Your task to perform on an android device: turn on javascript in the chrome app Image 0: 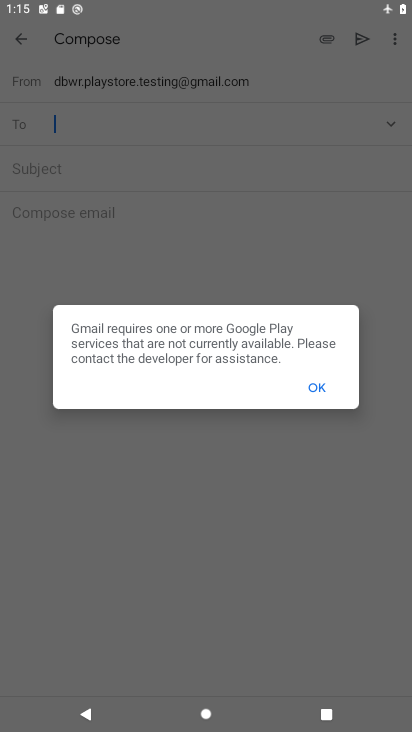
Step 0: press home button
Your task to perform on an android device: turn on javascript in the chrome app Image 1: 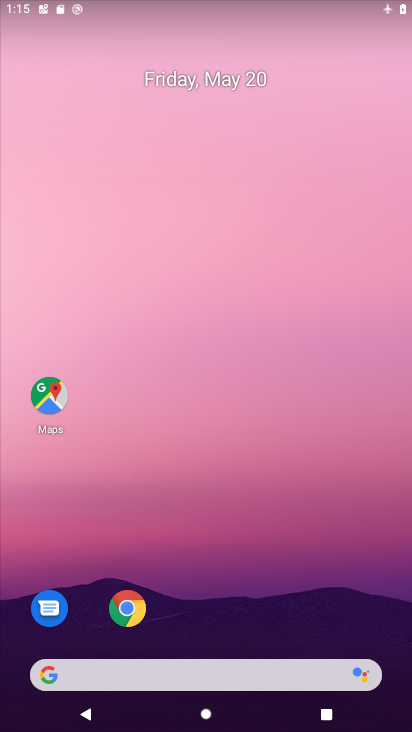
Step 1: click (136, 612)
Your task to perform on an android device: turn on javascript in the chrome app Image 2: 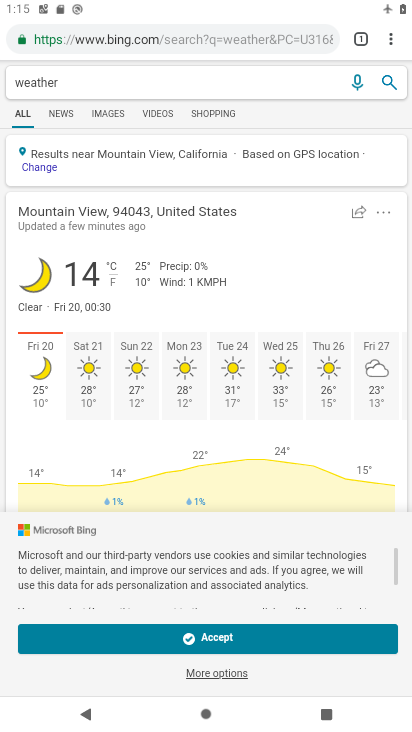
Step 2: drag from (388, 46) to (296, 436)
Your task to perform on an android device: turn on javascript in the chrome app Image 3: 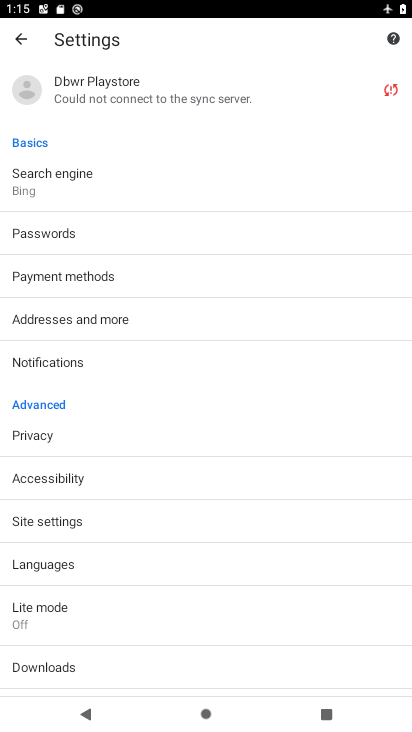
Step 3: click (42, 527)
Your task to perform on an android device: turn on javascript in the chrome app Image 4: 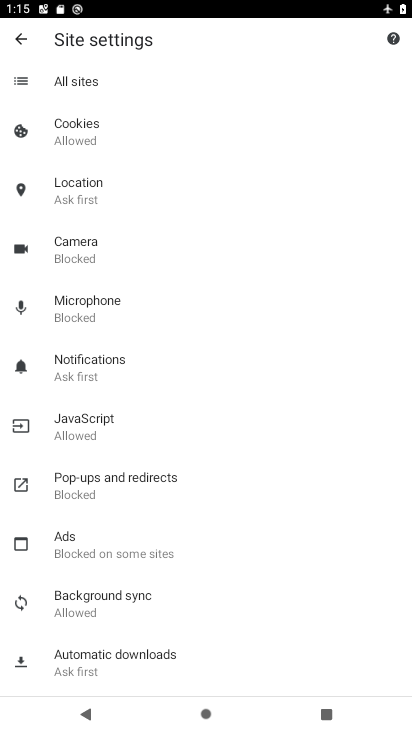
Step 4: click (97, 428)
Your task to perform on an android device: turn on javascript in the chrome app Image 5: 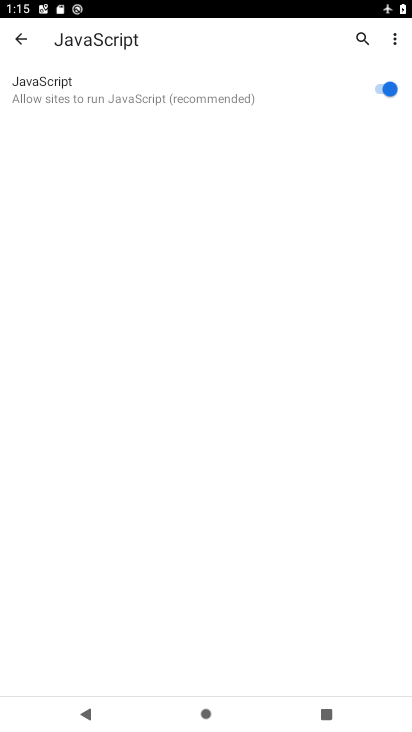
Step 5: task complete